Your task to perform on an android device: Open Wikipedia Image 0: 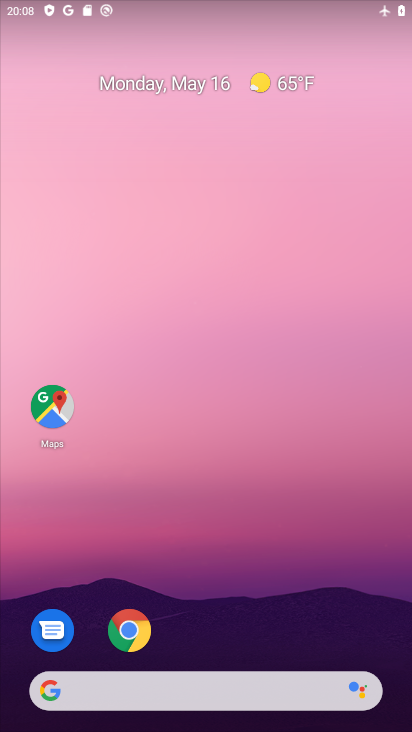
Step 0: click (141, 631)
Your task to perform on an android device: Open Wikipedia Image 1: 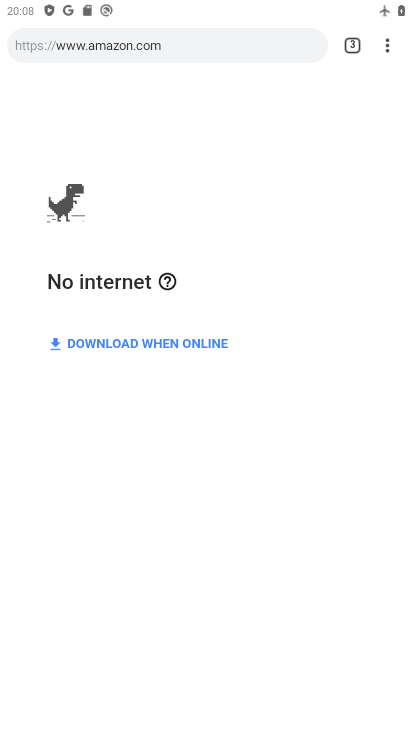
Step 1: click (346, 45)
Your task to perform on an android device: Open Wikipedia Image 2: 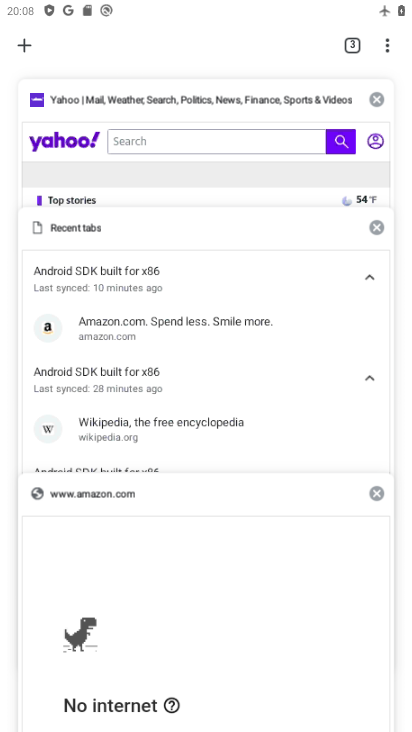
Step 2: click (23, 49)
Your task to perform on an android device: Open Wikipedia Image 3: 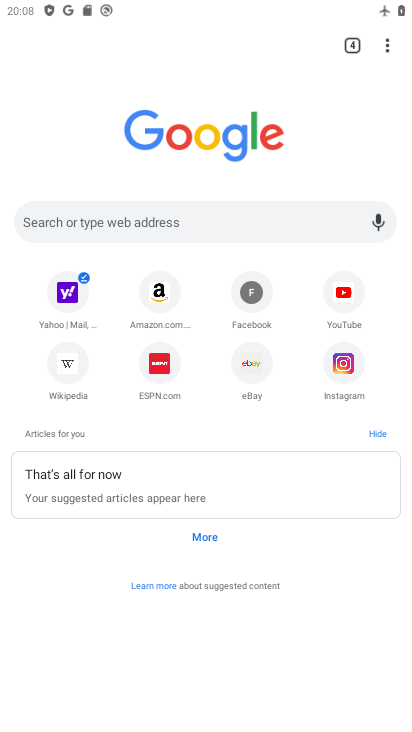
Step 3: click (148, 218)
Your task to perform on an android device: Open Wikipedia Image 4: 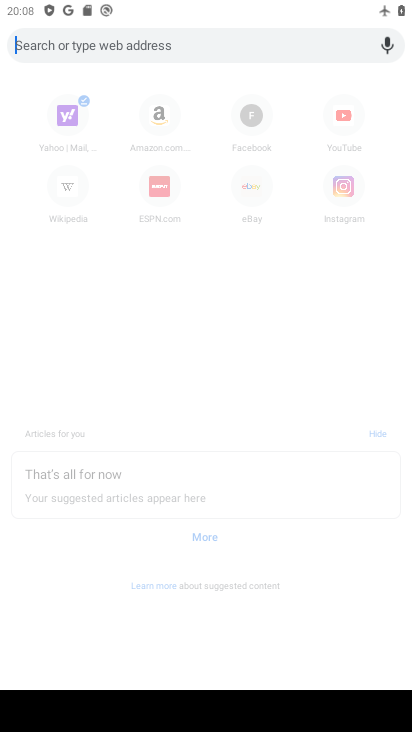
Step 4: type "Wikipedia"
Your task to perform on an android device: Open Wikipedia Image 5: 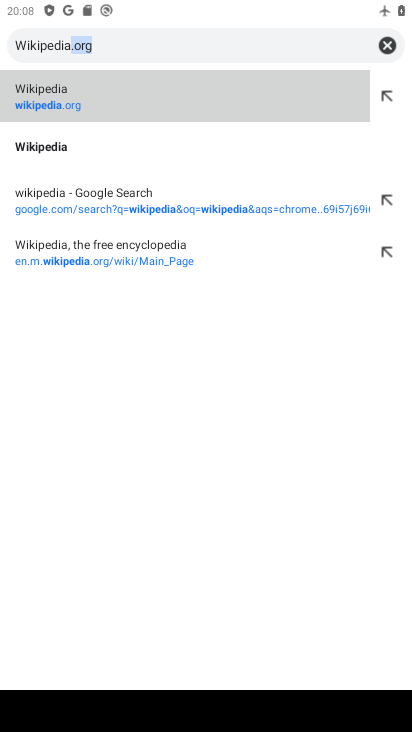
Step 5: click (132, 93)
Your task to perform on an android device: Open Wikipedia Image 6: 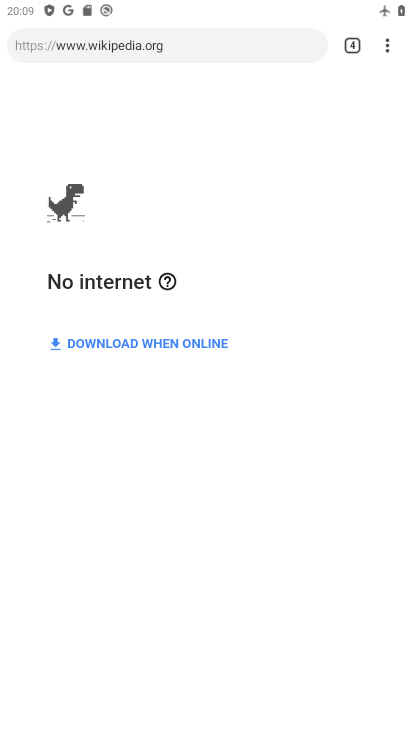
Step 6: task complete